Your task to perform on an android device: turn off translation in the chrome app Image 0: 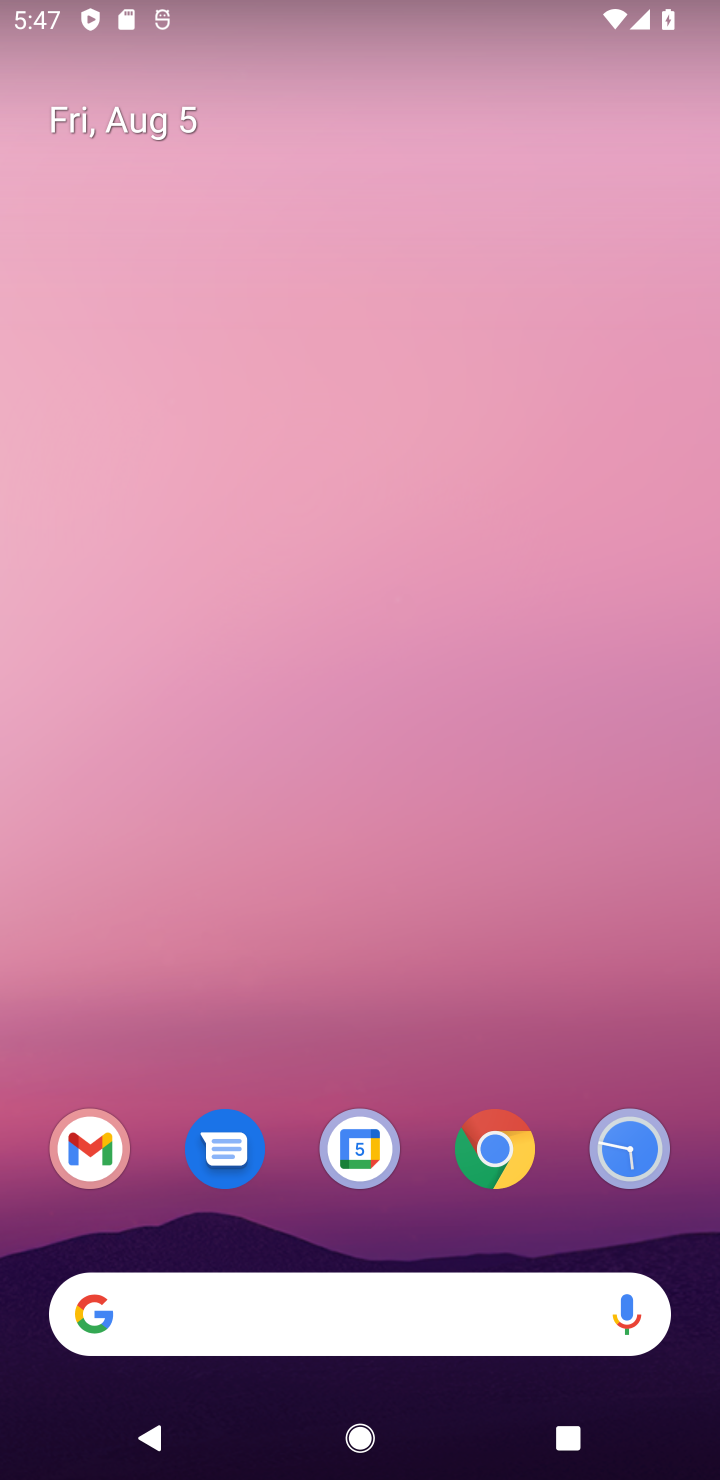
Step 0: click (481, 1174)
Your task to perform on an android device: turn off translation in the chrome app Image 1: 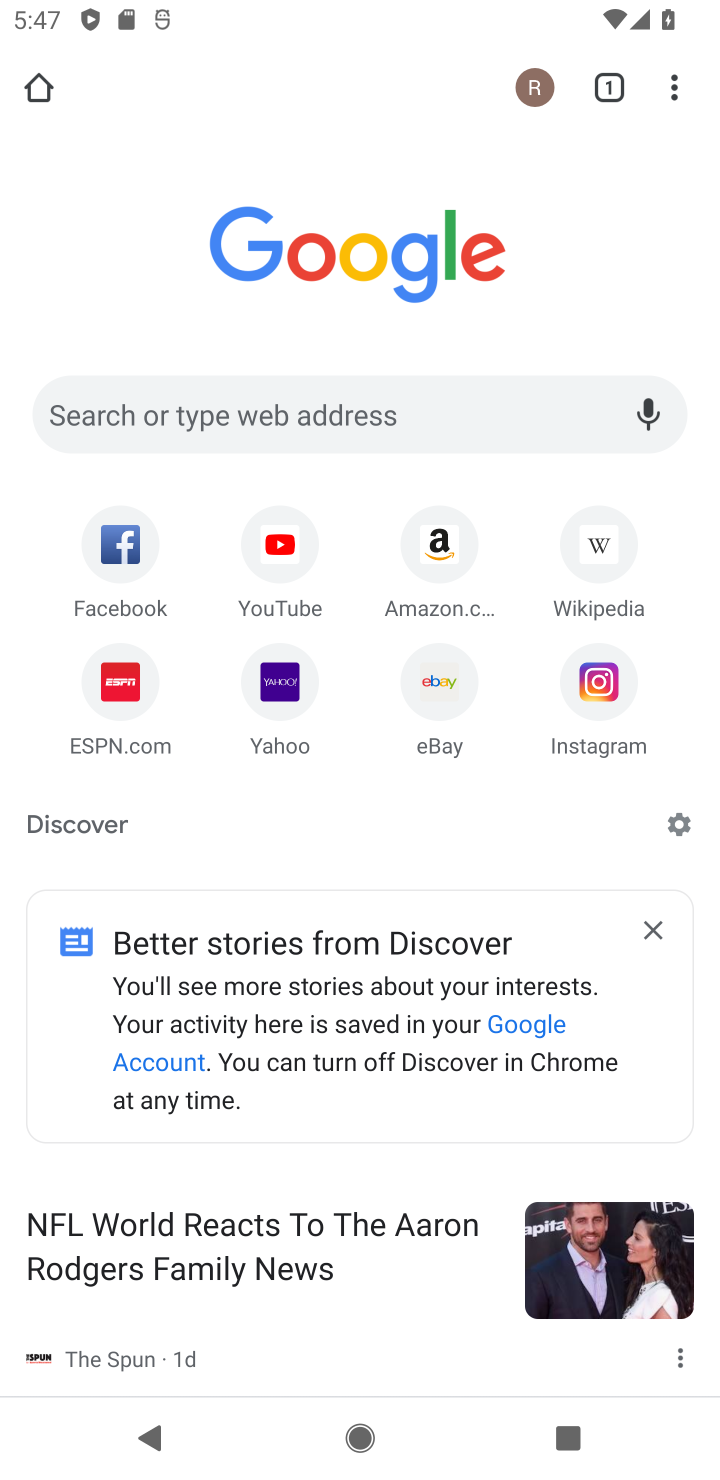
Step 1: click (675, 77)
Your task to perform on an android device: turn off translation in the chrome app Image 2: 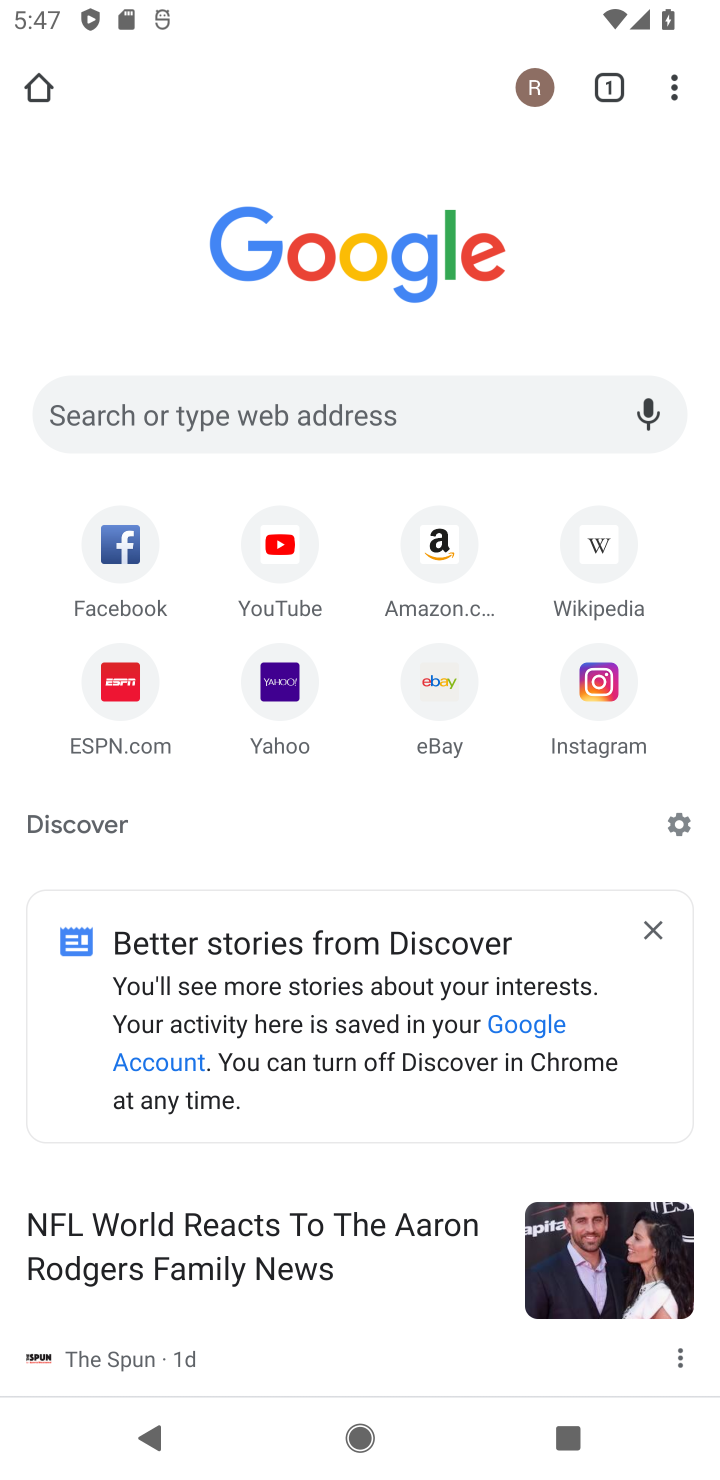
Step 2: click (665, 86)
Your task to perform on an android device: turn off translation in the chrome app Image 3: 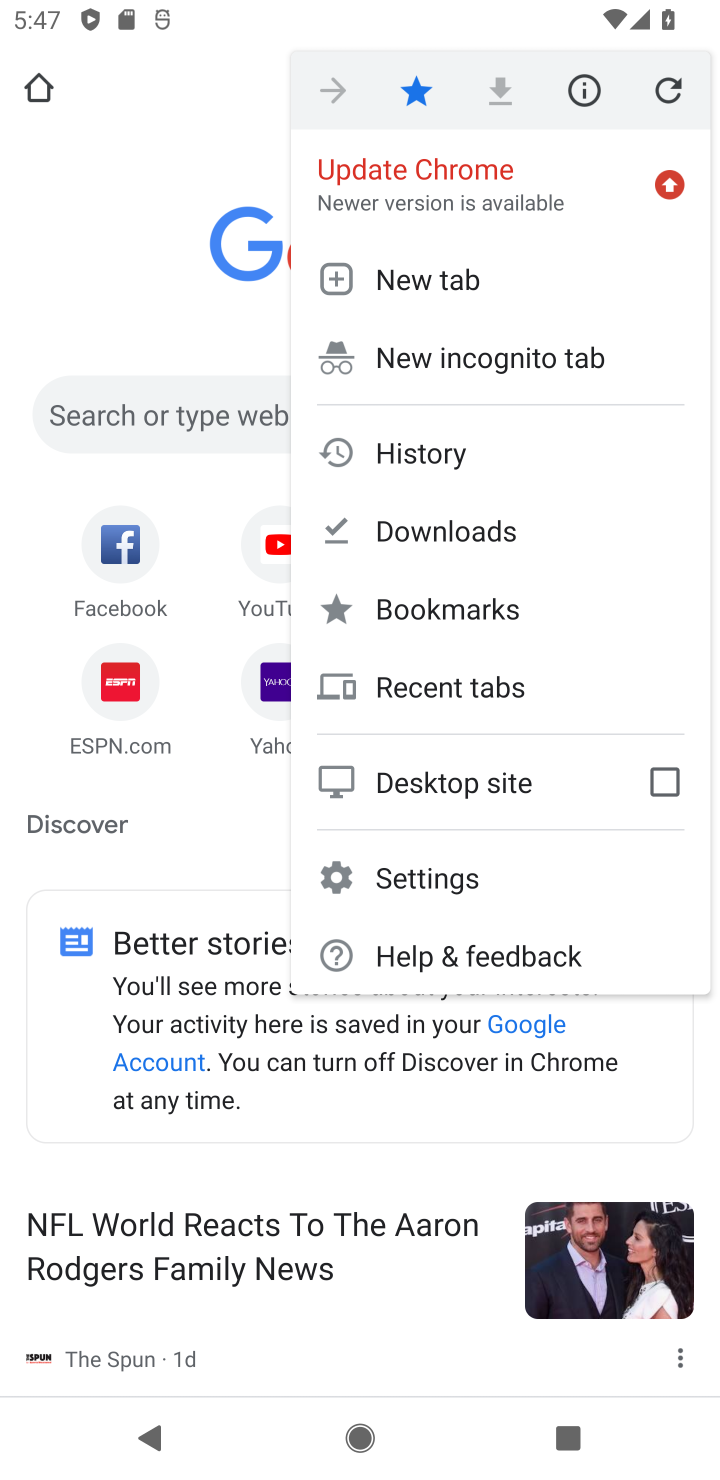
Step 3: click (454, 879)
Your task to perform on an android device: turn off translation in the chrome app Image 4: 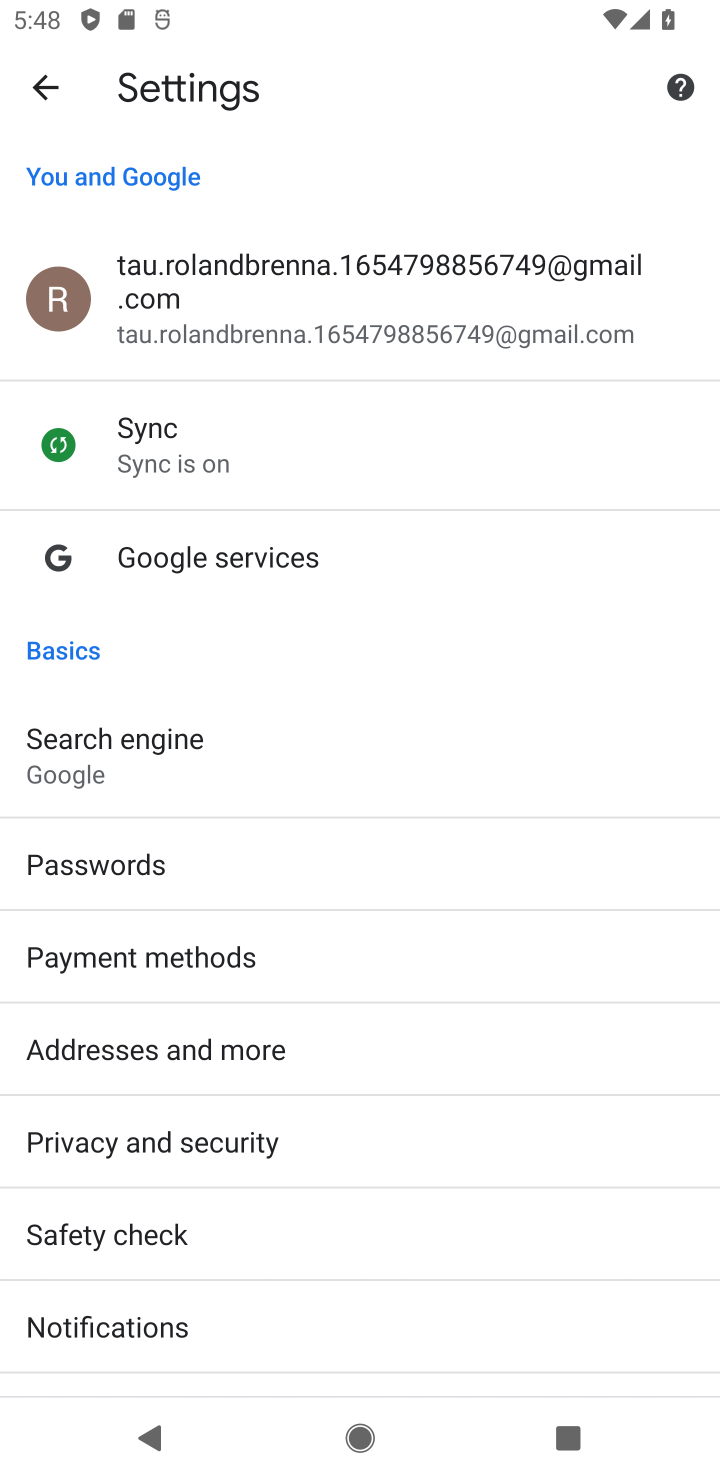
Step 4: drag from (414, 797) to (392, 115)
Your task to perform on an android device: turn off translation in the chrome app Image 5: 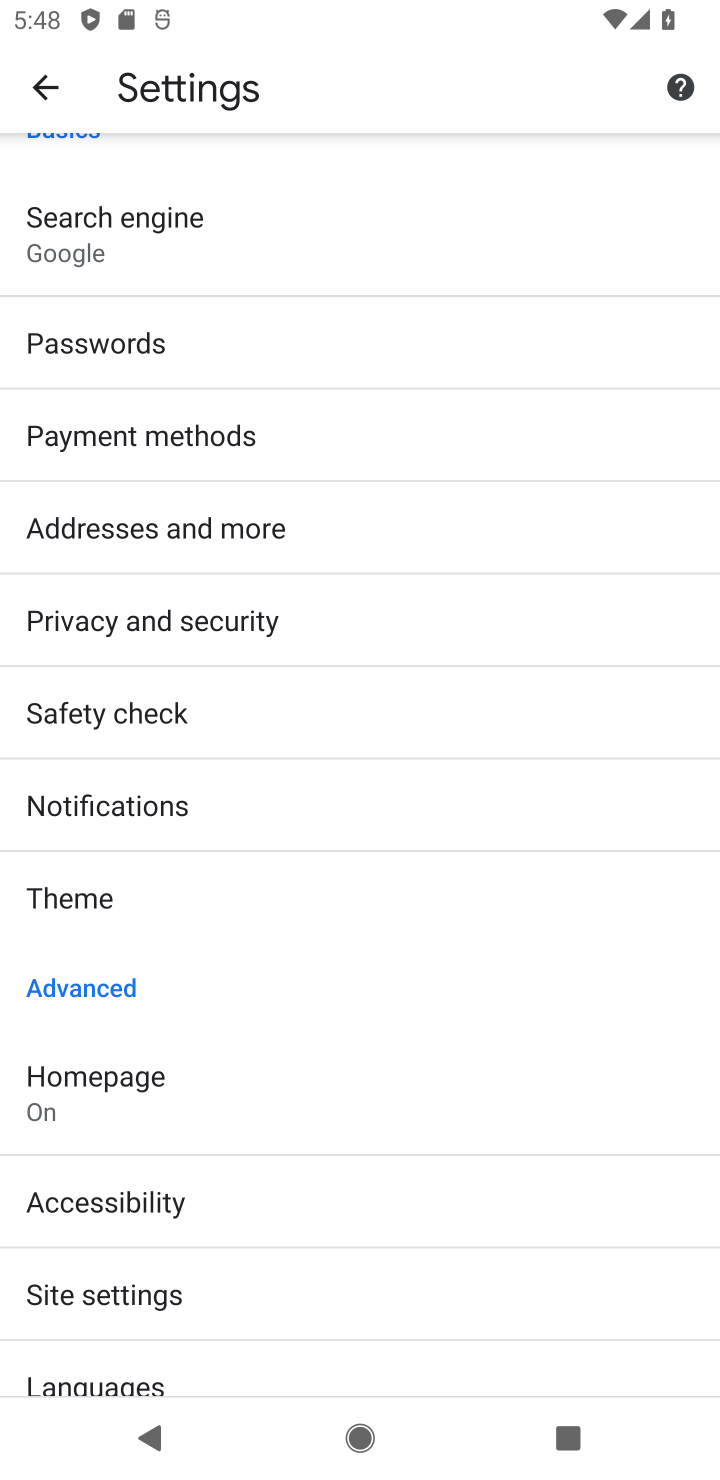
Step 5: click (122, 1290)
Your task to perform on an android device: turn off translation in the chrome app Image 6: 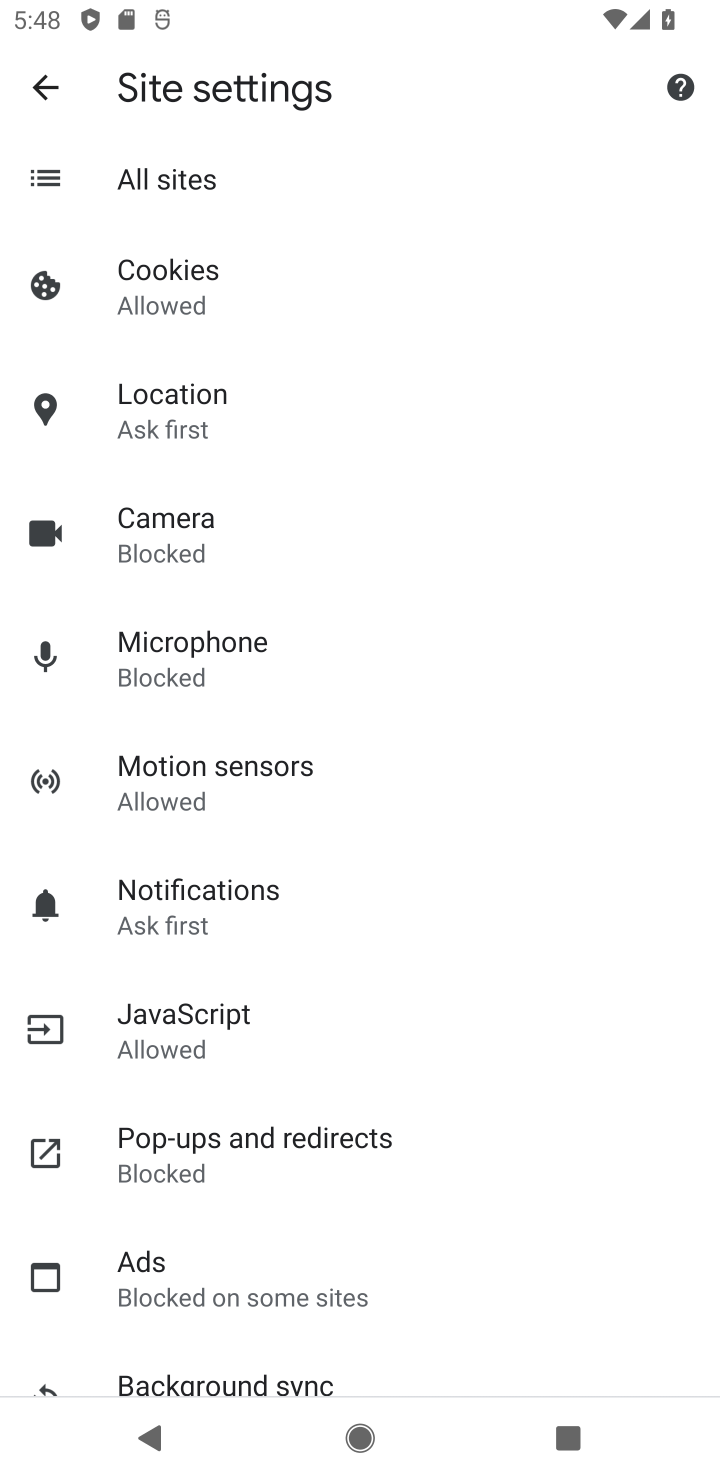
Step 6: drag from (608, 913) to (450, 126)
Your task to perform on an android device: turn off translation in the chrome app Image 7: 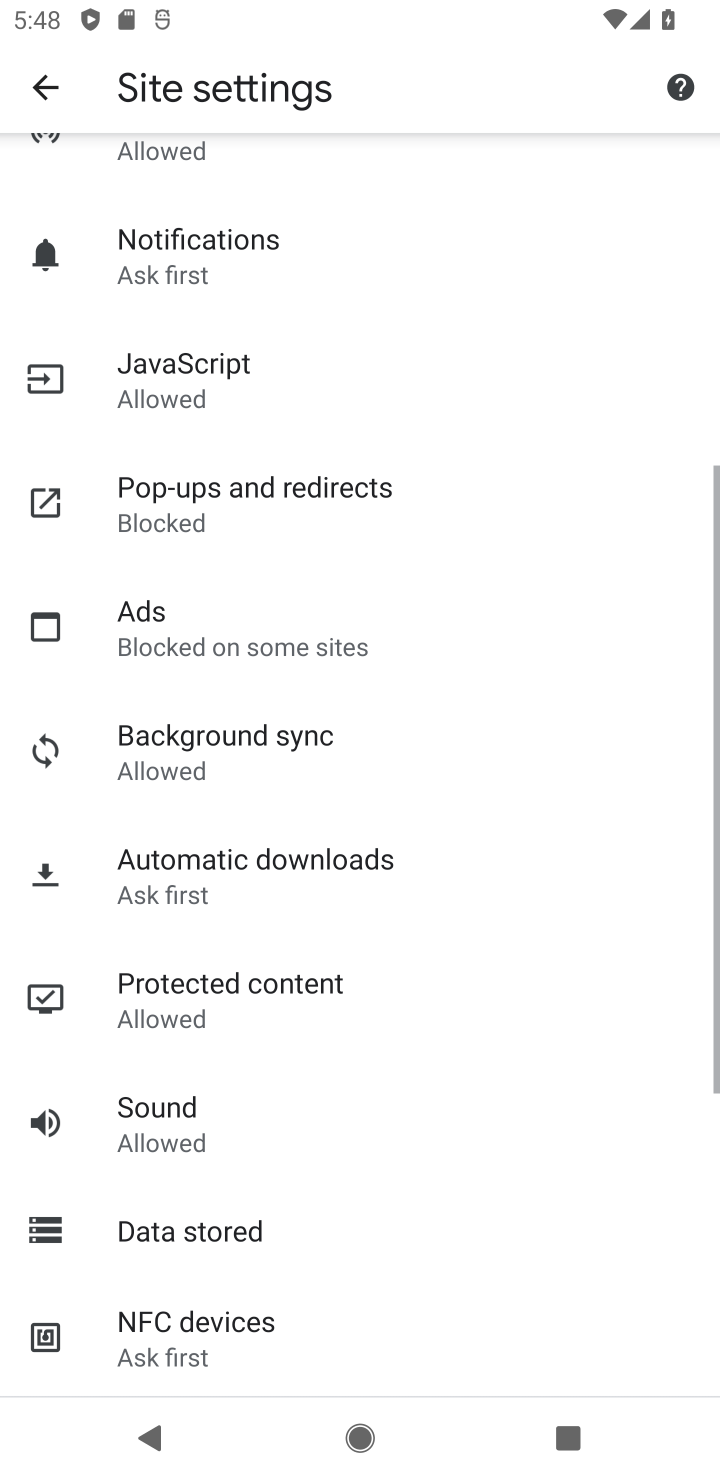
Step 7: drag from (488, 1080) to (381, 67)
Your task to perform on an android device: turn off translation in the chrome app Image 8: 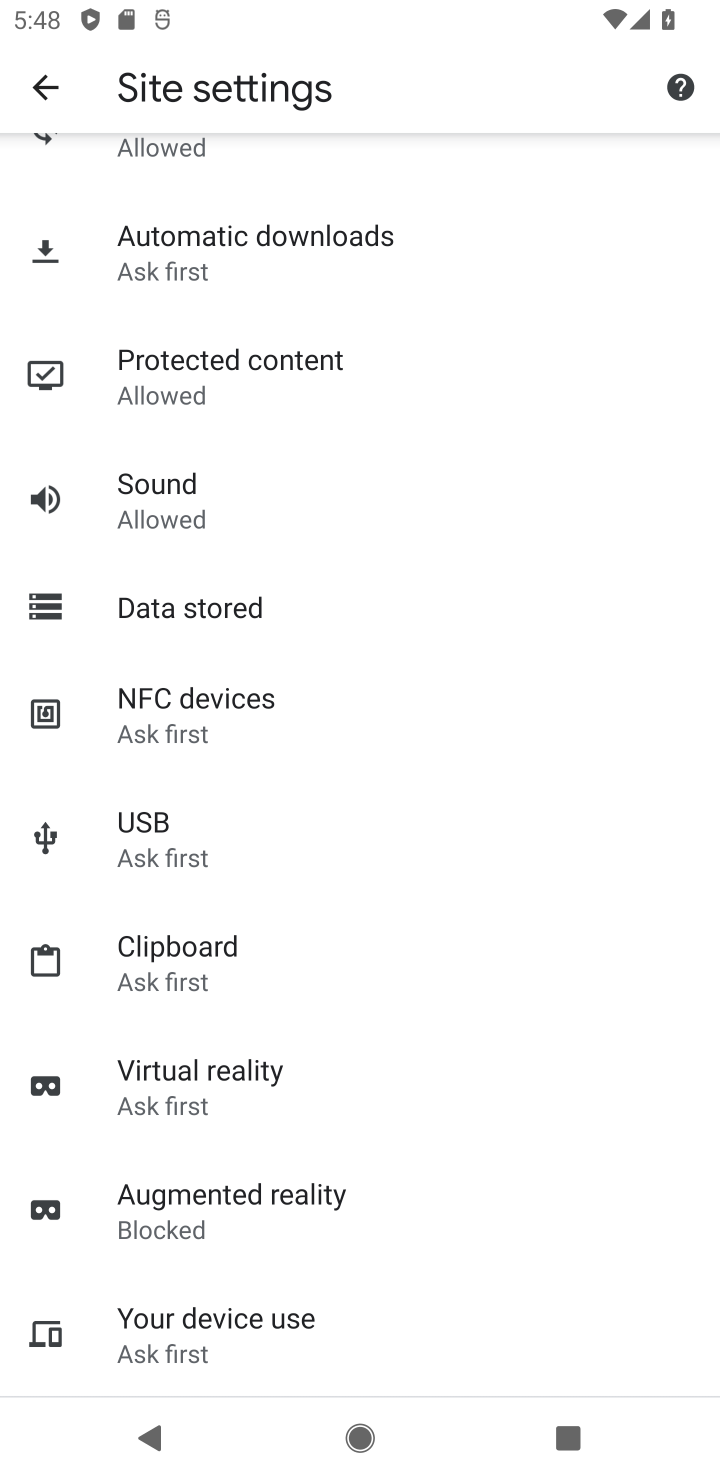
Step 8: drag from (449, 1093) to (441, 620)
Your task to perform on an android device: turn off translation in the chrome app Image 9: 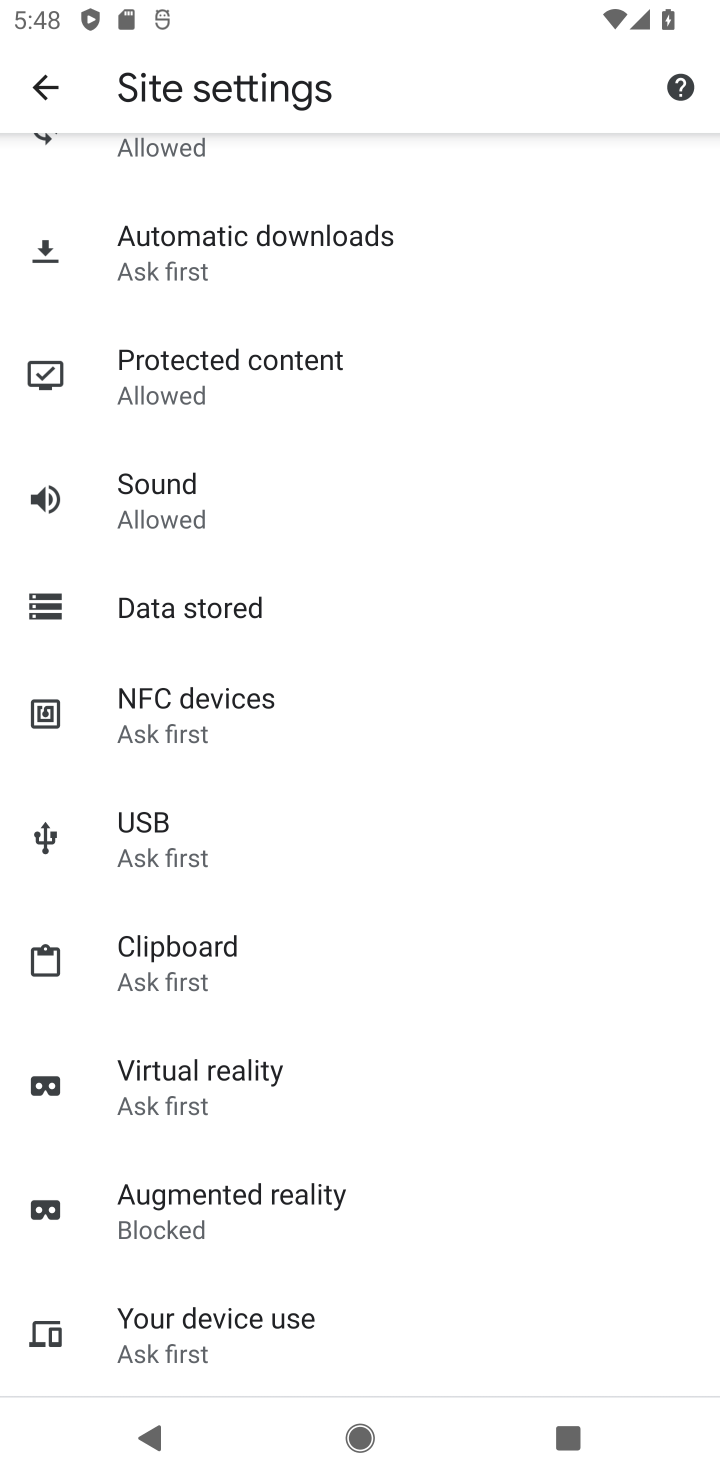
Step 9: click (41, 82)
Your task to perform on an android device: turn off translation in the chrome app Image 10: 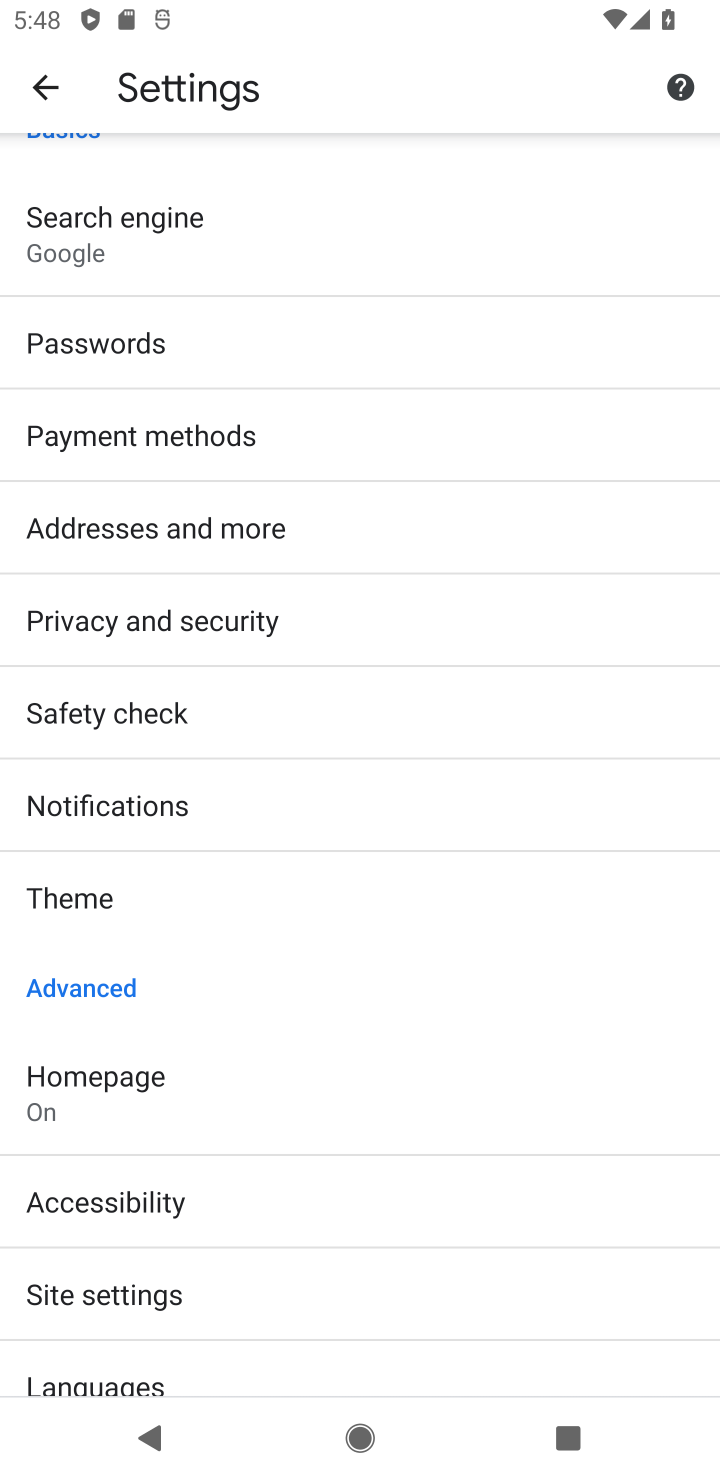
Step 10: click (68, 1377)
Your task to perform on an android device: turn off translation in the chrome app Image 11: 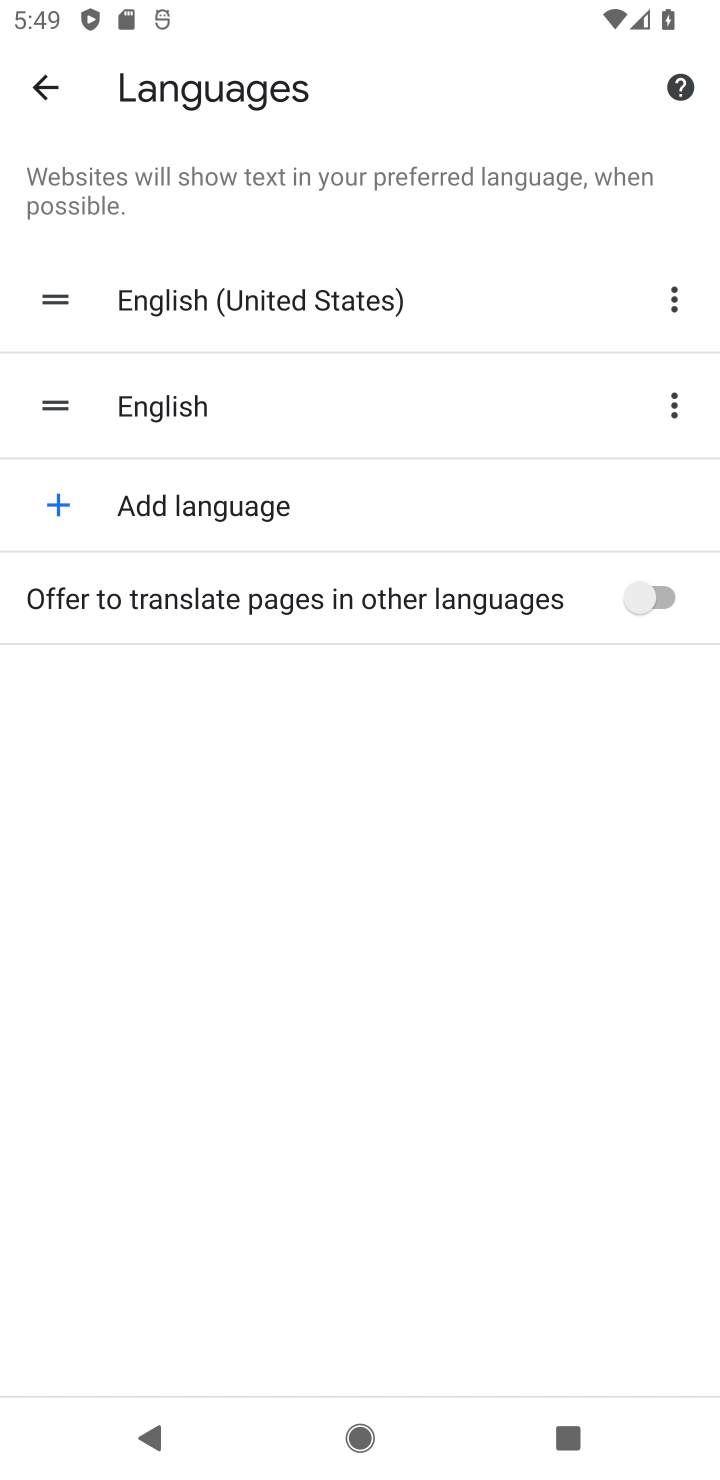
Step 11: task complete